Your task to perform on an android device: Open Amazon Image 0: 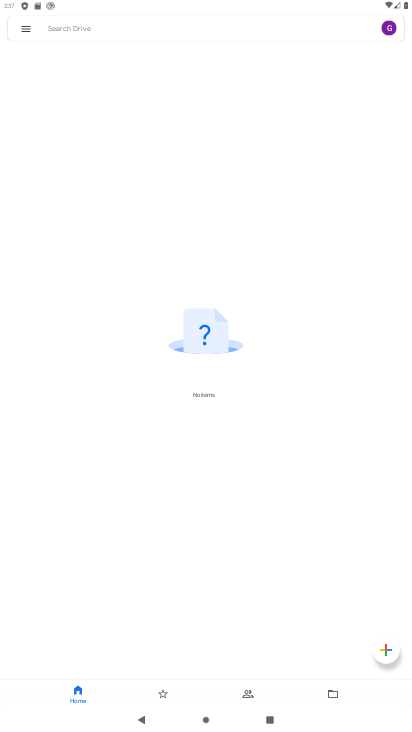
Step 0: press home button
Your task to perform on an android device: Open Amazon Image 1: 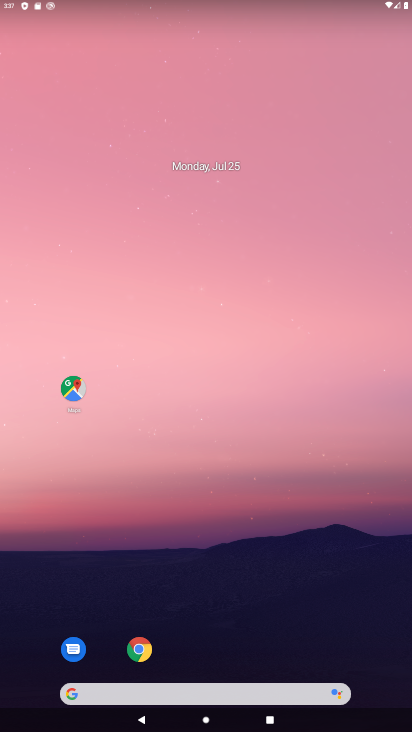
Step 1: drag from (207, 670) to (244, 244)
Your task to perform on an android device: Open Amazon Image 2: 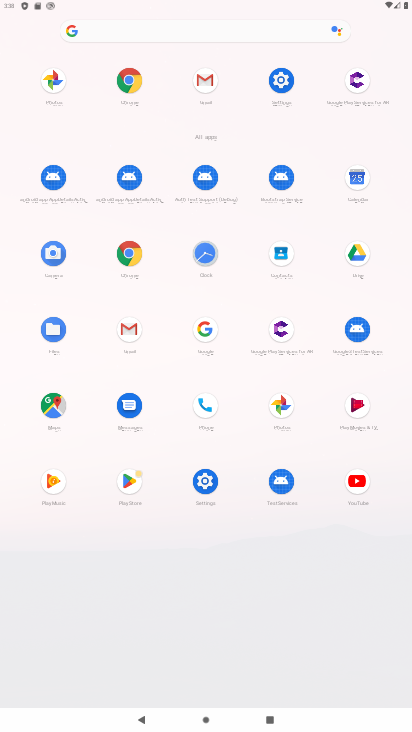
Step 2: click (135, 100)
Your task to perform on an android device: Open Amazon Image 3: 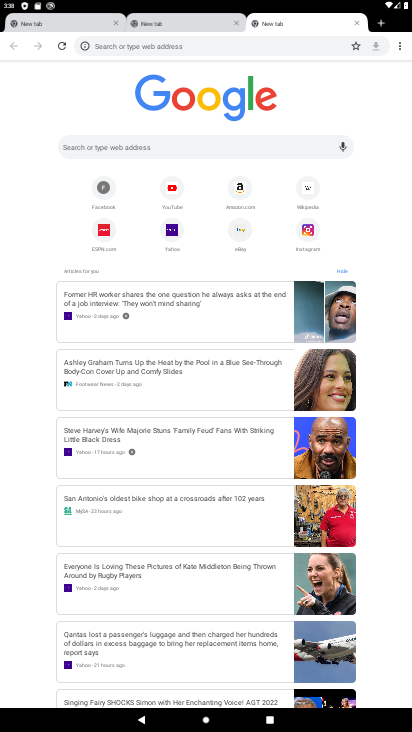
Step 3: click (247, 191)
Your task to perform on an android device: Open Amazon Image 4: 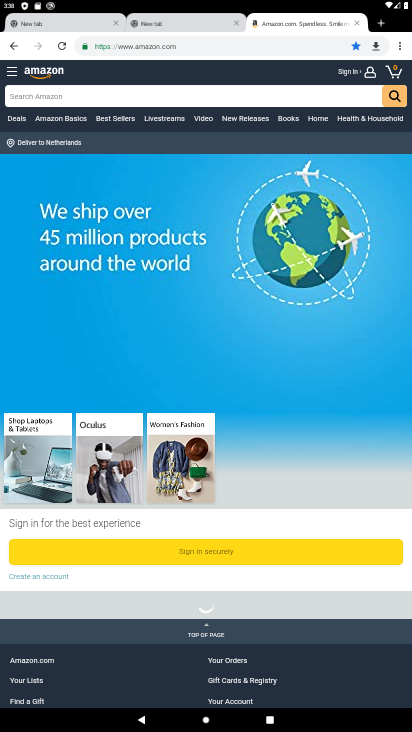
Step 4: task complete